Your task to perform on an android device: change the clock display to analog Image 0: 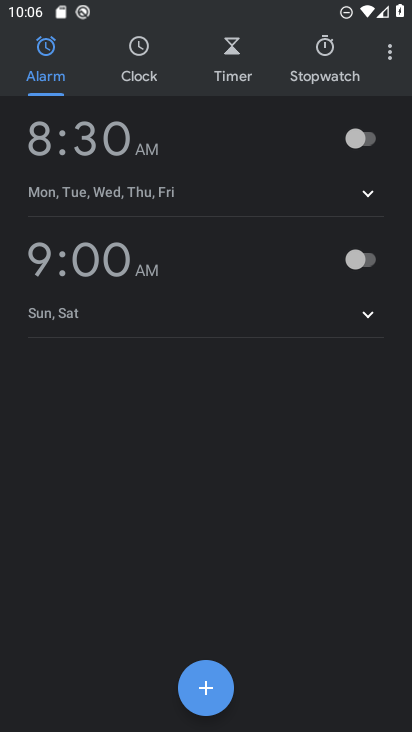
Step 0: press home button
Your task to perform on an android device: change the clock display to analog Image 1: 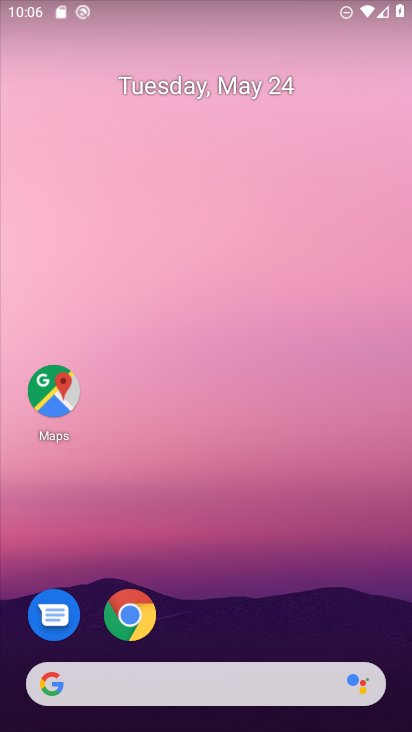
Step 1: drag from (367, 636) to (378, 311)
Your task to perform on an android device: change the clock display to analog Image 2: 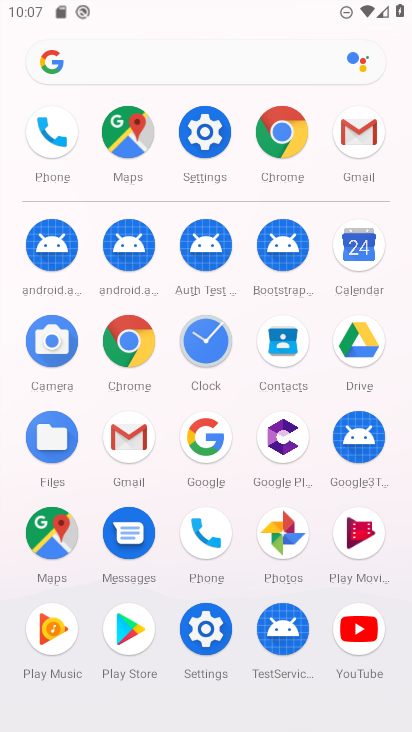
Step 2: click (203, 342)
Your task to perform on an android device: change the clock display to analog Image 3: 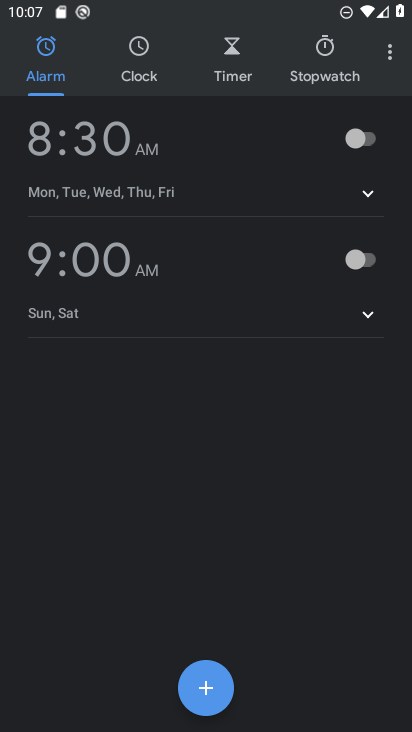
Step 3: click (396, 59)
Your task to perform on an android device: change the clock display to analog Image 4: 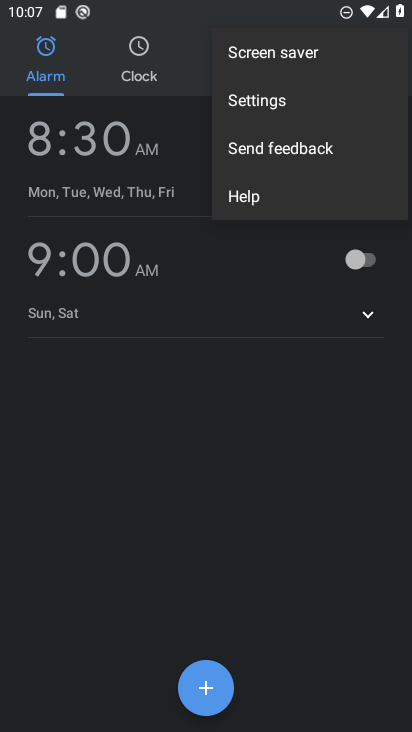
Step 4: click (309, 102)
Your task to perform on an android device: change the clock display to analog Image 5: 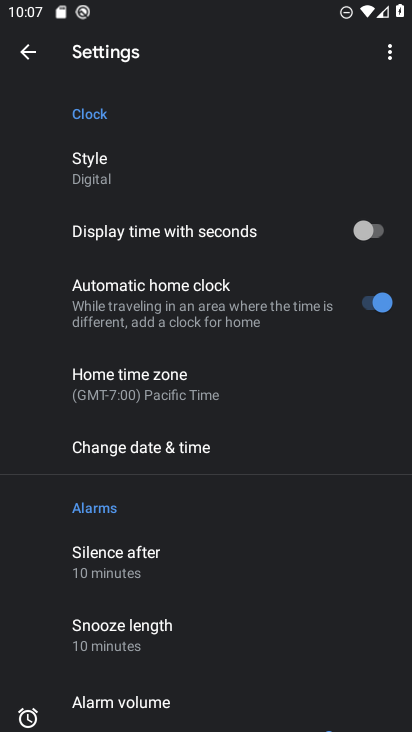
Step 5: drag from (298, 531) to (308, 341)
Your task to perform on an android device: change the clock display to analog Image 6: 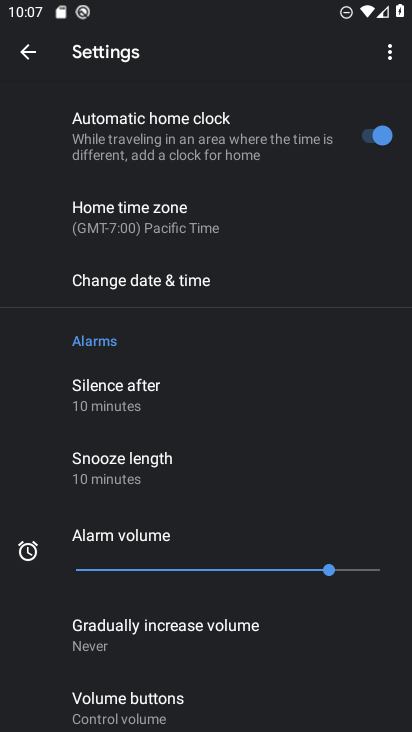
Step 6: drag from (314, 537) to (320, 376)
Your task to perform on an android device: change the clock display to analog Image 7: 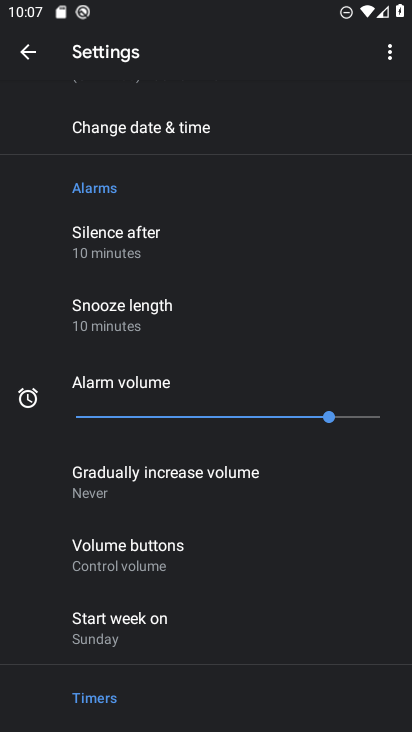
Step 7: drag from (320, 613) to (329, 358)
Your task to perform on an android device: change the clock display to analog Image 8: 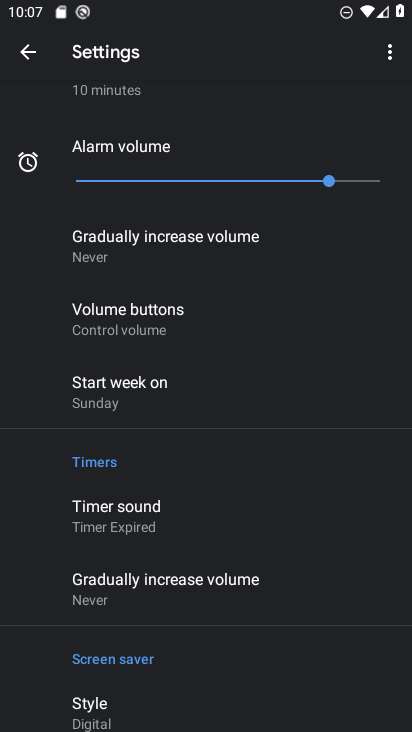
Step 8: drag from (319, 626) to (337, 455)
Your task to perform on an android device: change the clock display to analog Image 9: 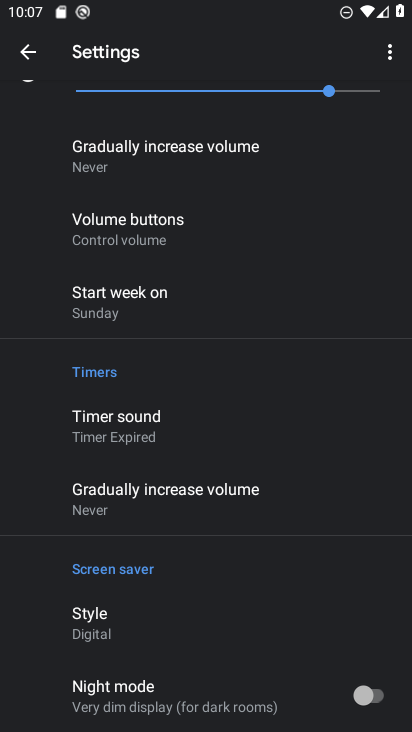
Step 9: drag from (307, 356) to (318, 498)
Your task to perform on an android device: change the clock display to analog Image 10: 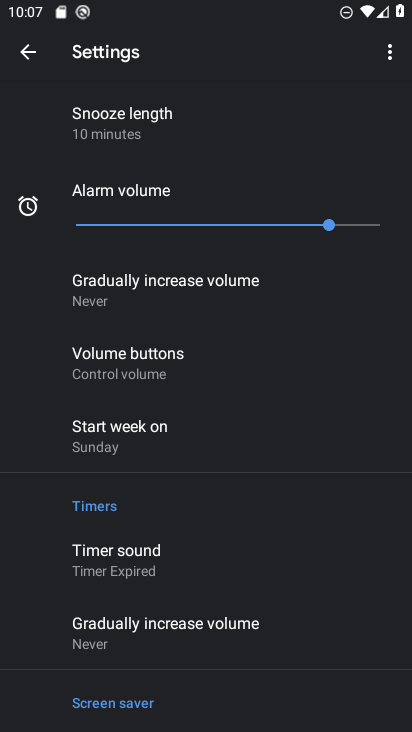
Step 10: drag from (305, 160) to (272, 399)
Your task to perform on an android device: change the clock display to analog Image 11: 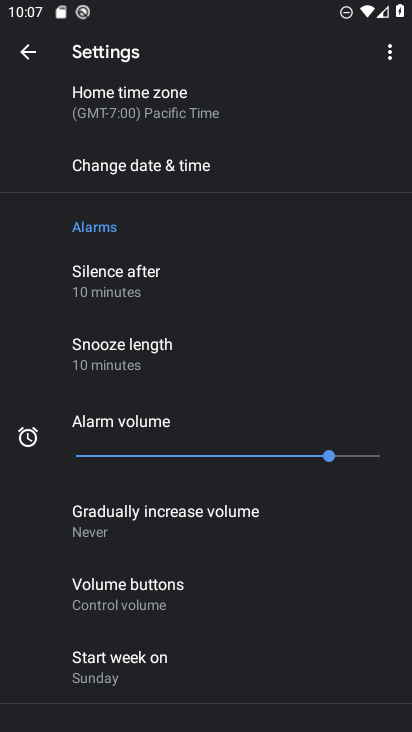
Step 11: drag from (253, 200) to (236, 406)
Your task to perform on an android device: change the clock display to analog Image 12: 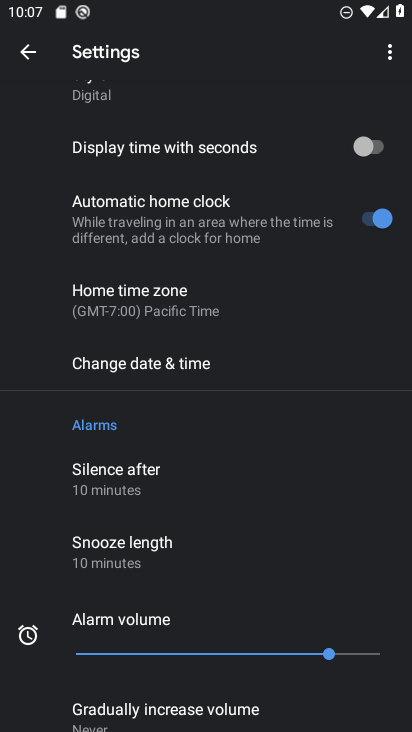
Step 12: drag from (280, 126) to (279, 264)
Your task to perform on an android device: change the clock display to analog Image 13: 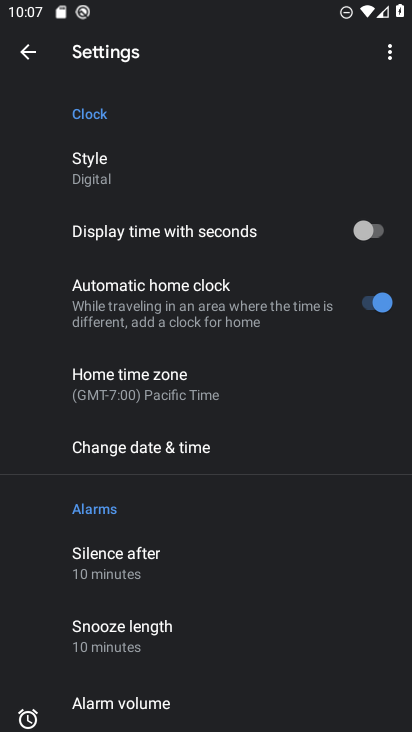
Step 13: click (116, 161)
Your task to perform on an android device: change the clock display to analog Image 14: 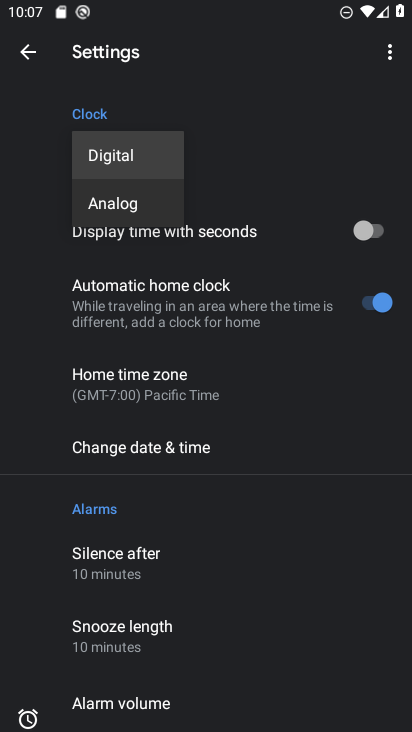
Step 14: click (152, 204)
Your task to perform on an android device: change the clock display to analog Image 15: 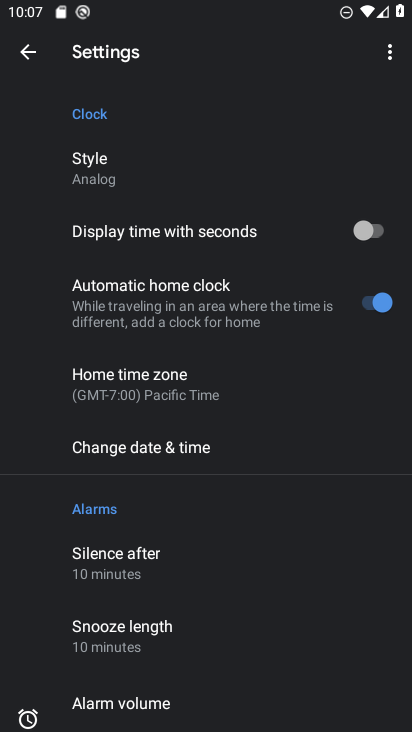
Step 15: task complete